Your task to perform on an android device: find snoozed emails in the gmail app Image 0: 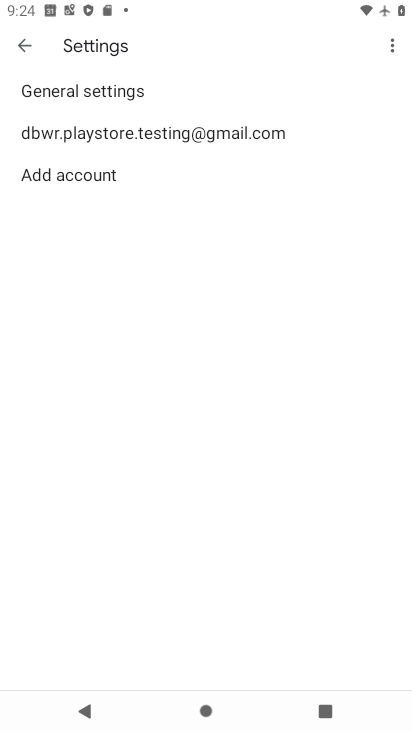
Step 0: press home button
Your task to perform on an android device: find snoozed emails in the gmail app Image 1: 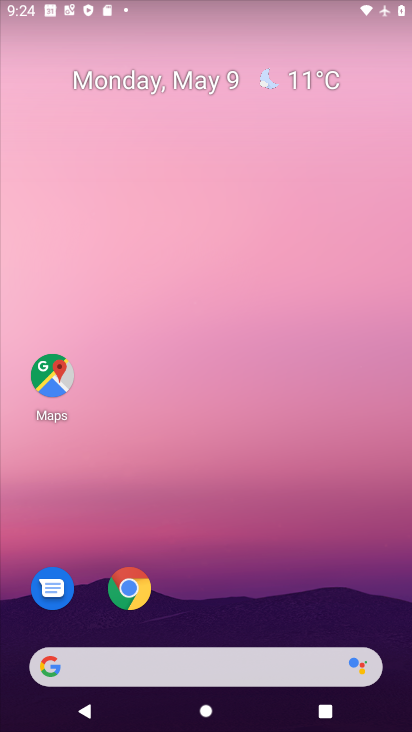
Step 1: drag from (189, 681) to (299, 222)
Your task to perform on an android device: find snoozed emails in the gmail app Image 2: 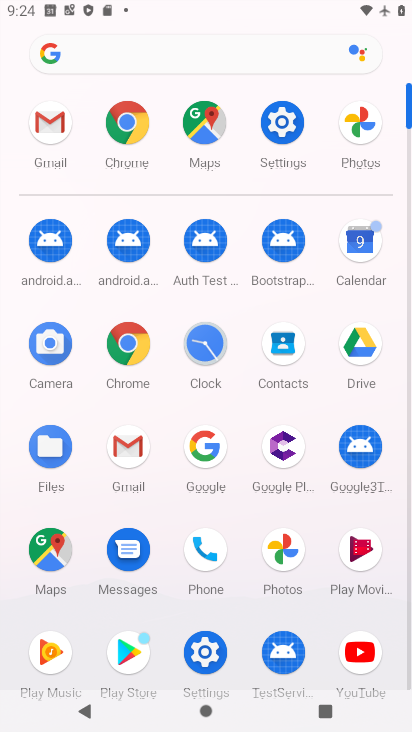
Step 2: click (53, 128)
Your task to perform on an android device: find snoozed emails in the gmail app Image 3: 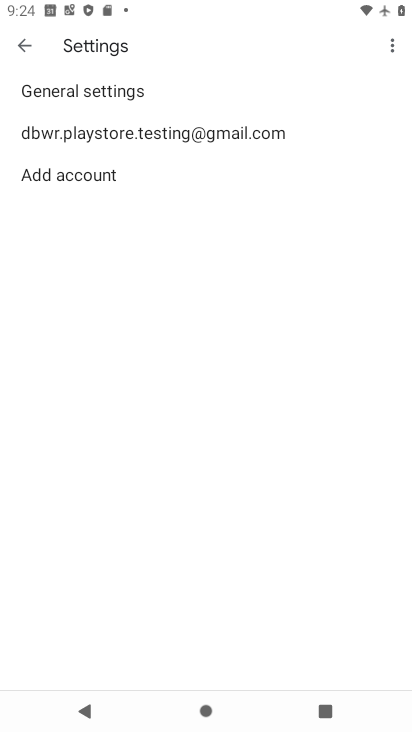
Step 3: click (21, 43)
Your task to perform on an android device: find snoozed emails in the gmail app Image 4: 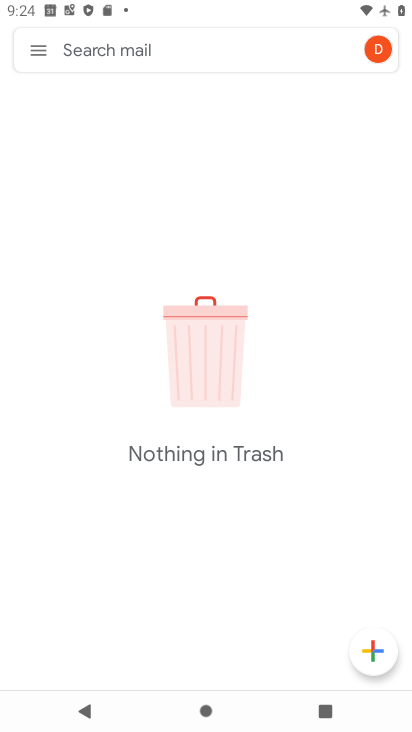
Step 4: click (42, 53)
Your task to perform on an android device: find snoozed emails in the gmail app Image 5: 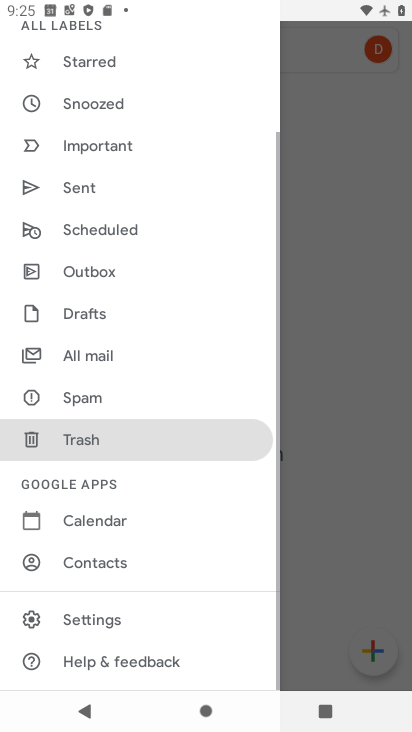
Step 5: click (108, 106)
Your task to perform on an android device: find snoozed emails in the gmail app Image 6: 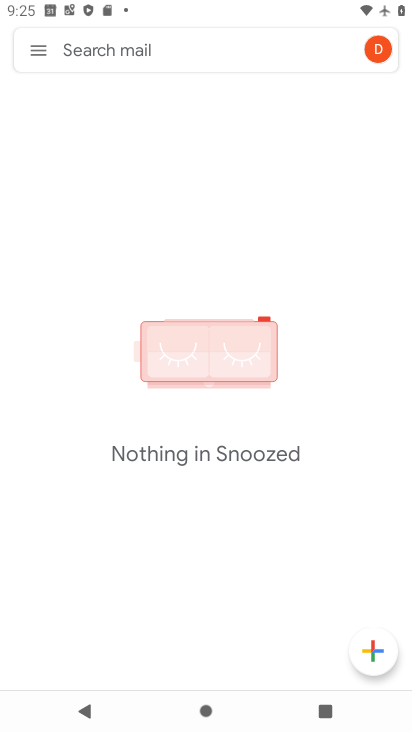
Step 6: task complete